Your task to perform on an android device: Show me productivity apps on the Play Store Image 0: 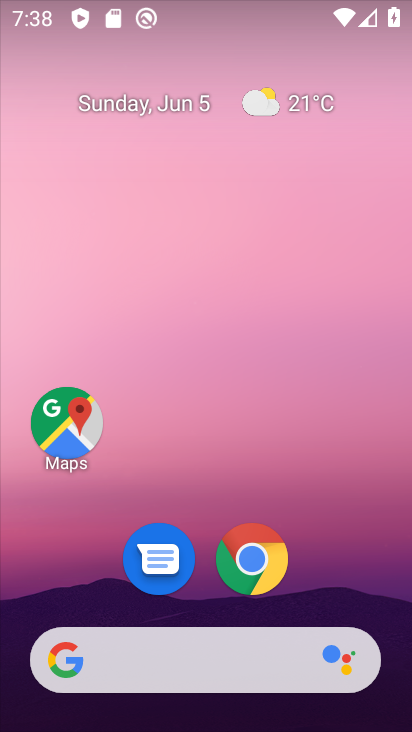
Step 0: drag from (267, 317) to (222, 151)
Your task to perform on an android device: Show me productivity apps on the Play Store Image 1: 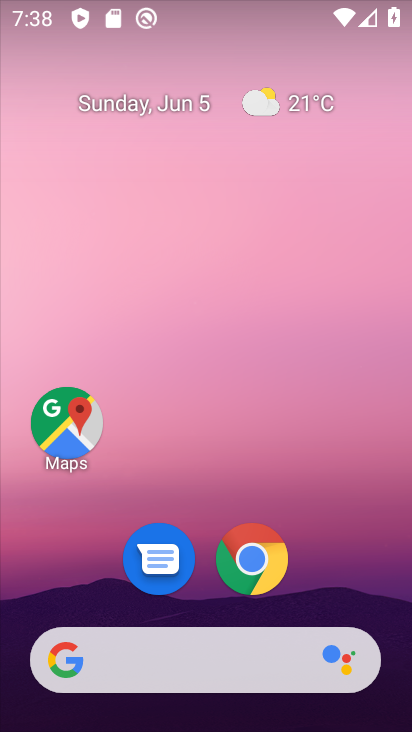
Step 1: drag from (406, 609) to (231, 215)
Your task to perform on an android device: Show me productivity apps on the Play Store Image 2: 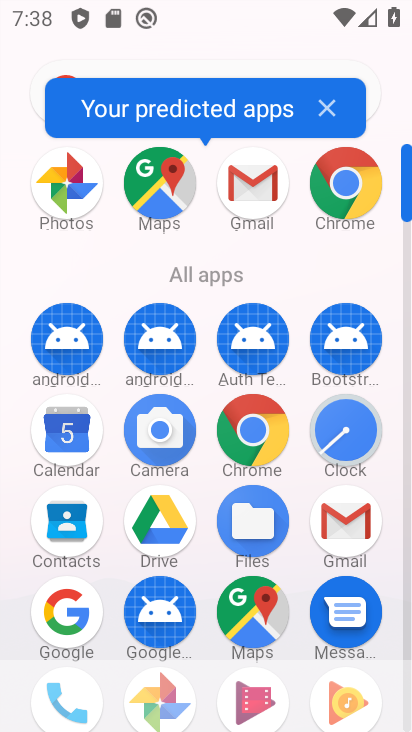
Step 2: drag from (295, 614) to (338, 181)
Your task to perform on an android device: Show me productivity apps on the Play Store Image 3: 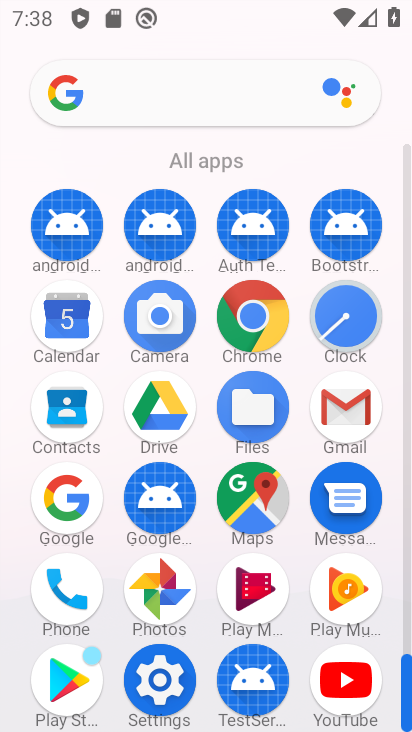
Step 3: click (64, 701)
Your task to perform on an android device: Show me productivity apps on the Play Store Image 4: 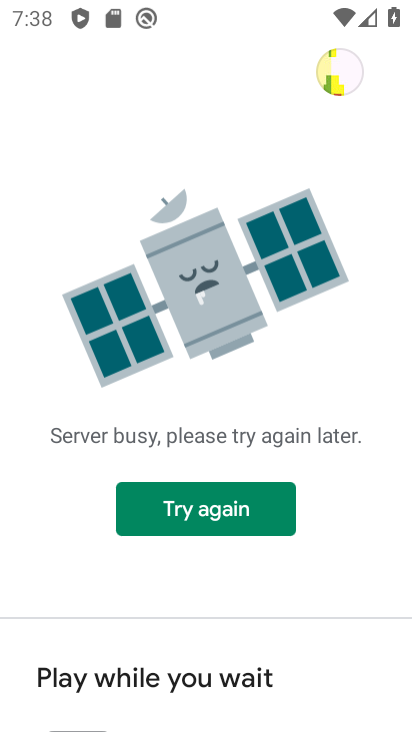
Step 4: task complete